Your task to perform on an android device: manage bookmarks in the chrome app Image 0: 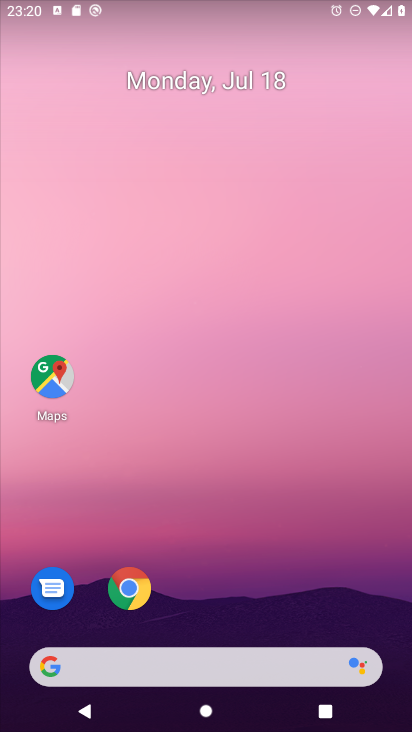
Step 0: click (129, 588)
Your task to perform on an android device: manage bookmarks in the chrome app Image 1: 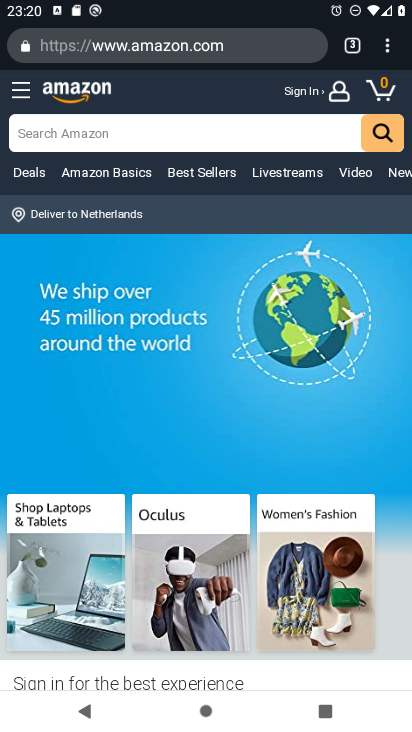
Step 1: click (388, 52)
Your task to perform on an android device: manage bookmarks in the chrome app Image 2: 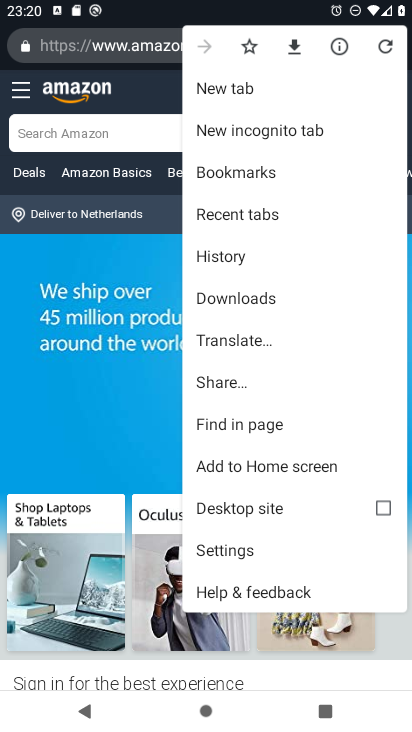
Step 2: click (226, 166)
Your task to perform on an android device: manage bookmarks in the chrome app Image 3: 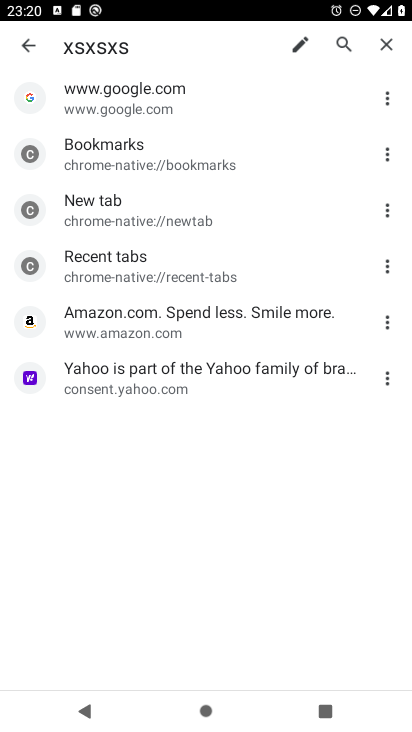
Step 3: click (98, 376)
Your task to perform on an android device: manage bookmarks in the chrome app Image 4: 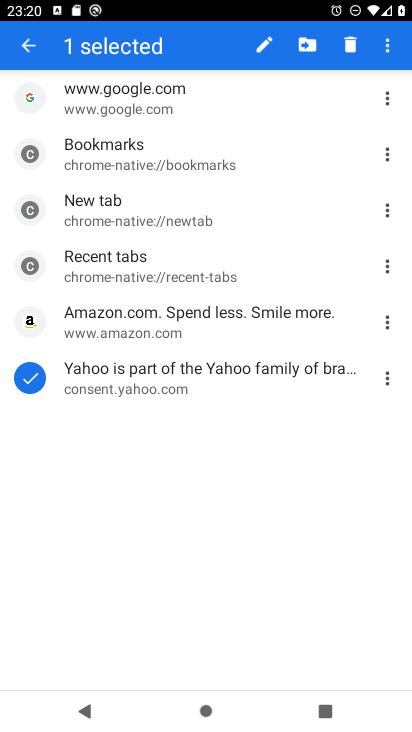
Step 4: click (306, 40)
Your task to perform on an android device: manage bookmarks in the chrome app Image 5: 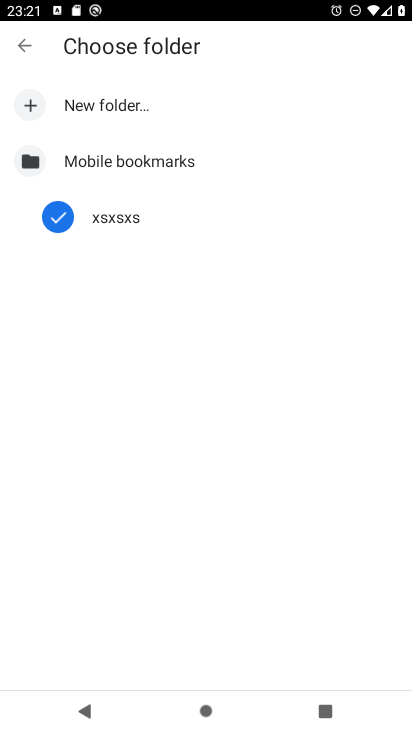
Step 5: click (33, 102)
Your task to perform on an android device: manage bookmarks in the chrome app Image 6: 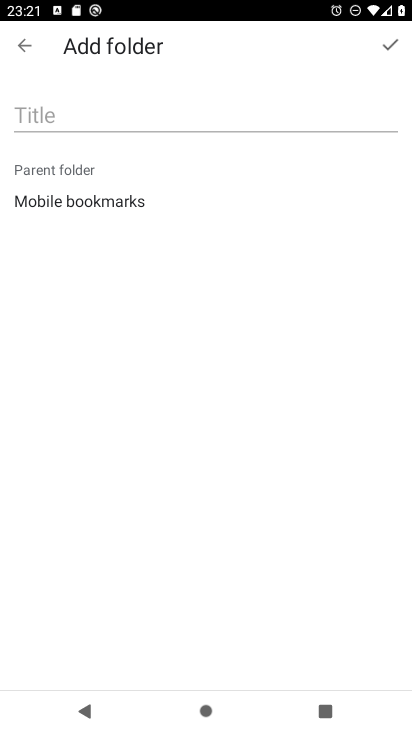
Step 6: click (125, 107)
Your task to perform on an android device: manage bookmarks in the chrome app Image 7: 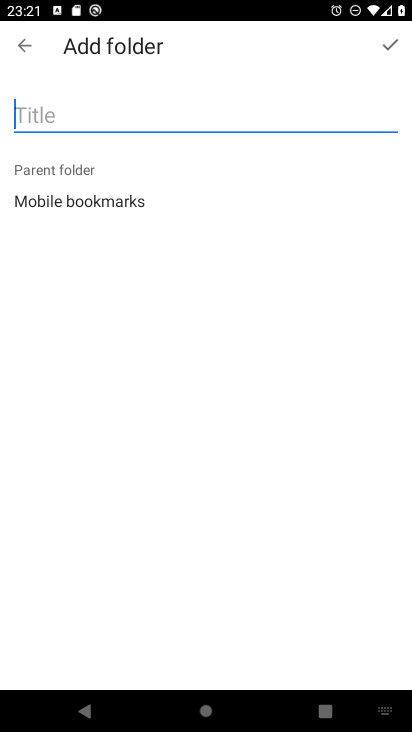
Step 7: type "oiuytrg"
Your task to perform on an android device: manage bookmarks in the chrome app Image 8: 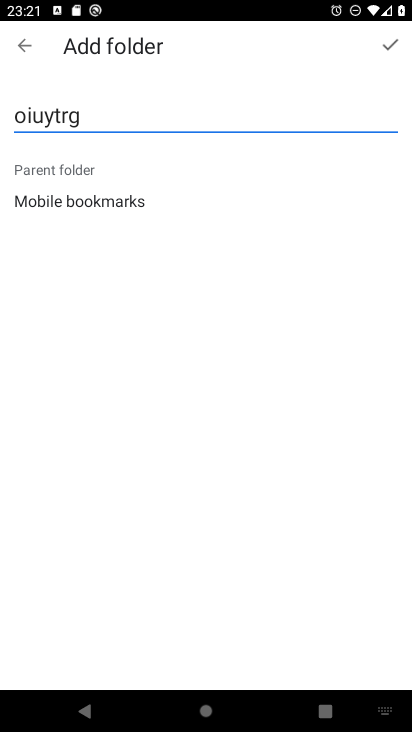
Step 8: click (392, 43)
Your task to perform on an android device: manage bookmarks in the chrome app Image 9: 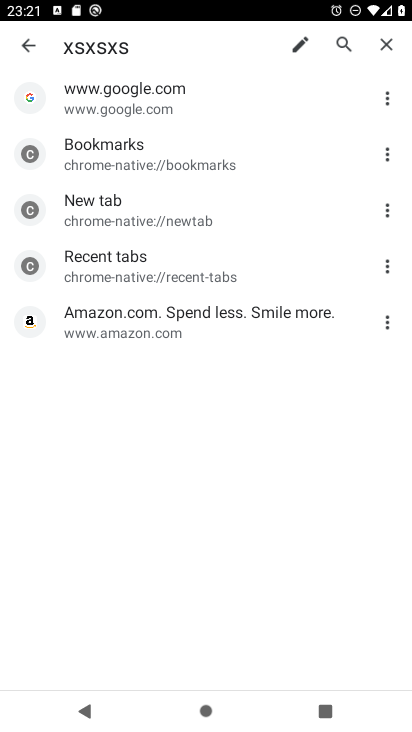
Step 9: task complete